Your task to perform on an android device: allow cookies in the chrome app Image 0: 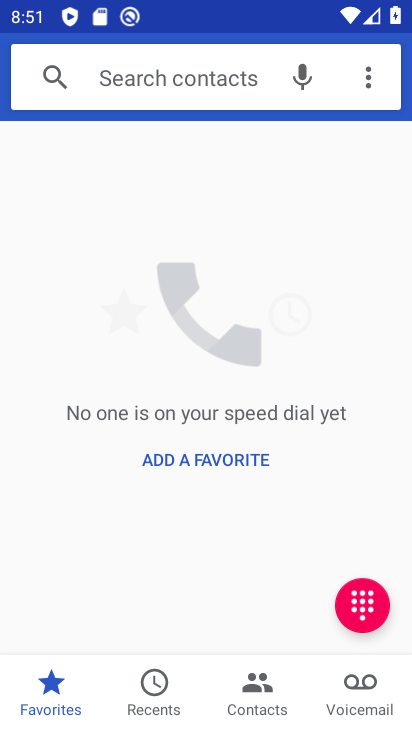
Step 0: press home button
Your task to perform on an android device: allow cookies in the chrome app Image 1: 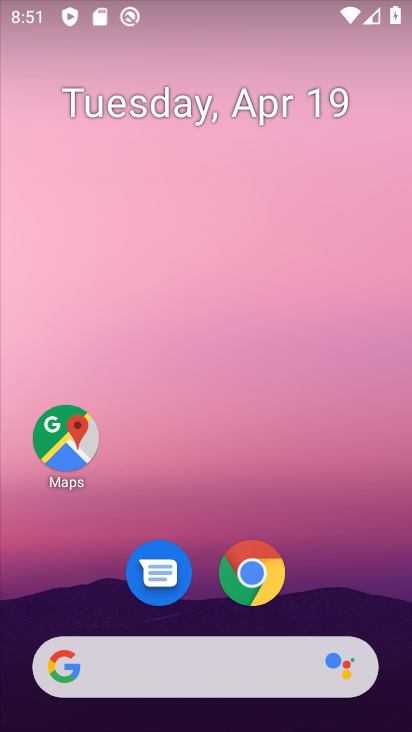
Step 1: click (258, 567)
Your task to perform on an android device: allow cookies in the chrome app Image 2: 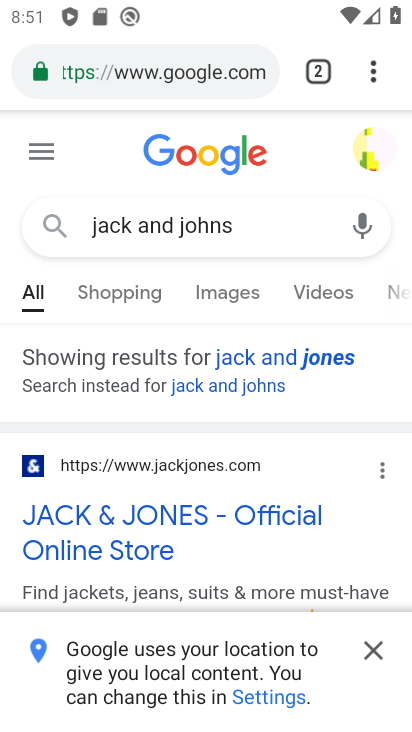
Step 2: click (366, 73)
Your task to perform on an android device: allow cookies in the chrome app Image 3: 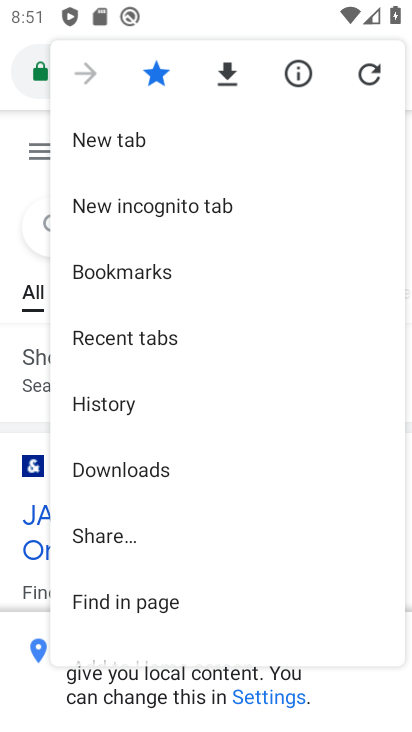
Step 3: click (366, 73)
Your task to perform on an android device: allow cookies in the chrome app Image 4: 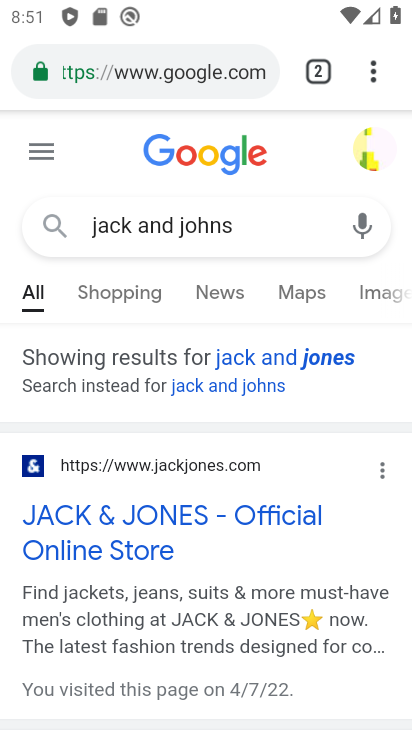
Step 4: click (366, 75)
Your task to perform on an android device: allow cookies in the chrome app Image 5: 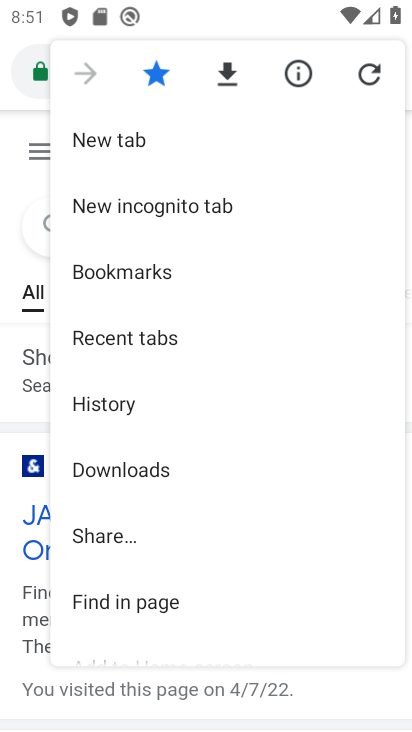
Step 5: drag from (245, 523) to (243, 226)
Your task to perform on an android device: allow cookies in the chrome app Image 6: 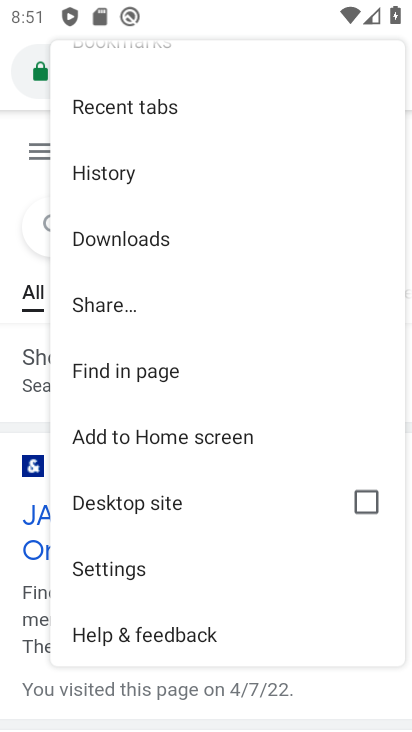
Step 6: click (114, 568)
Your task to perform on an android device: allow cookies in the chrome app Image 7: 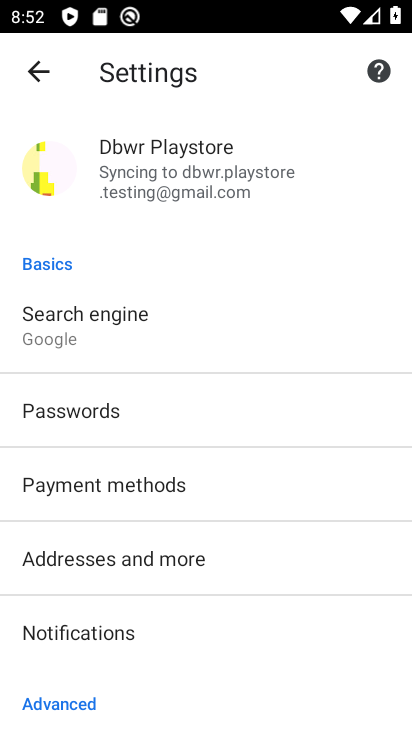
Step 7: drag from (179, 622) to (200, 342)
Your task to perform on an android device: allow cookies in the chrome app Image 8: 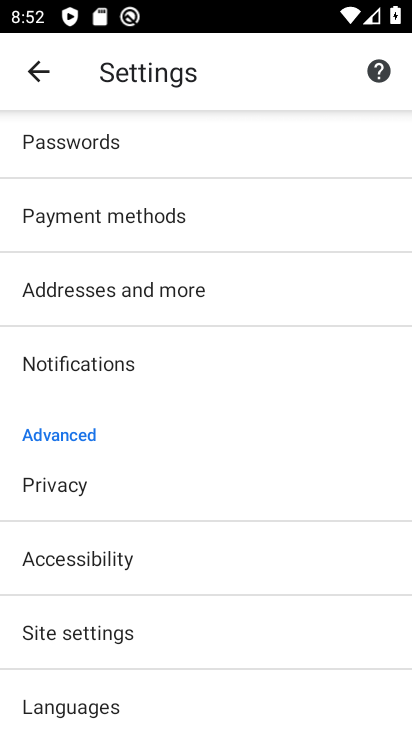
Step 8: click (74, 630)
Your task to perform on an android device: allow cookies in the chrome app Image 9: 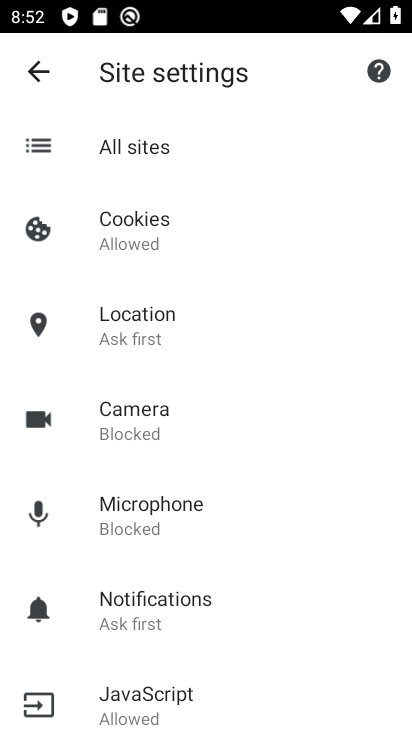
Step 9: click (246, 239)
Your task to perform on an android device: allow cookies in the chrome app Image 10: 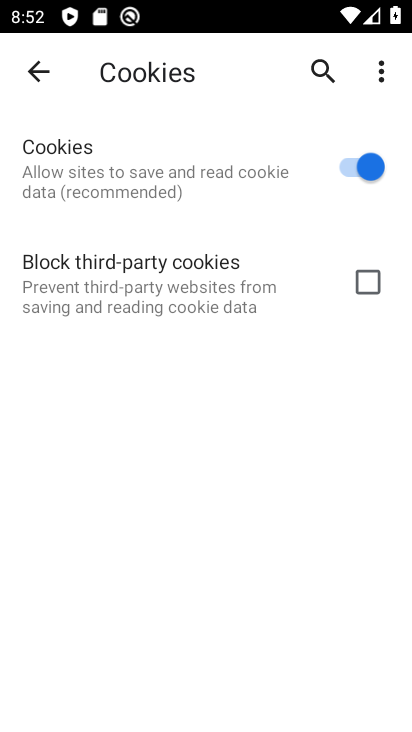
Step 10: task complete